Your task to perform on an android device: turn off location history Image 0: 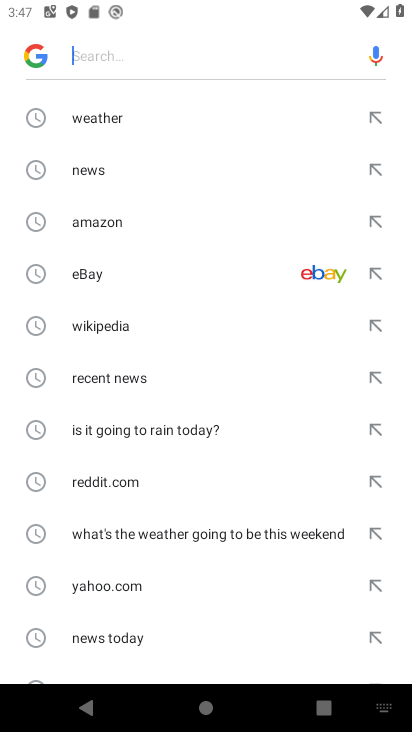
Step 0: press home button
Your task to perform on an android device: turn off location history Image 1: 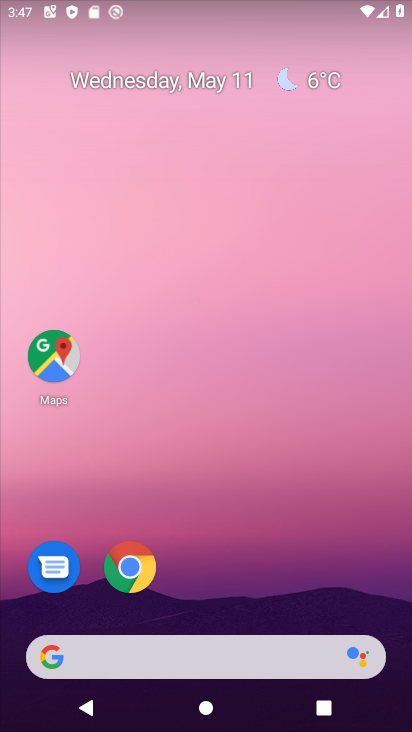
Step 1: drag from (234, 607) to (182, 217)
Your task to perform on an android device: turn off location history Image 2: 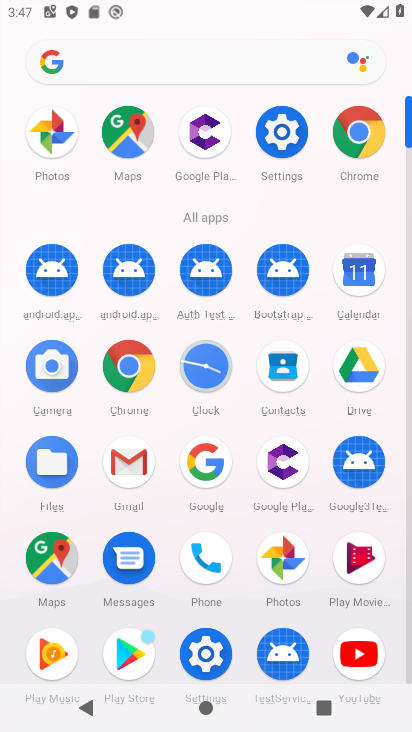
Step 2: click (279, 117)
Your task to perform on an android device: turn off location history Image 3: 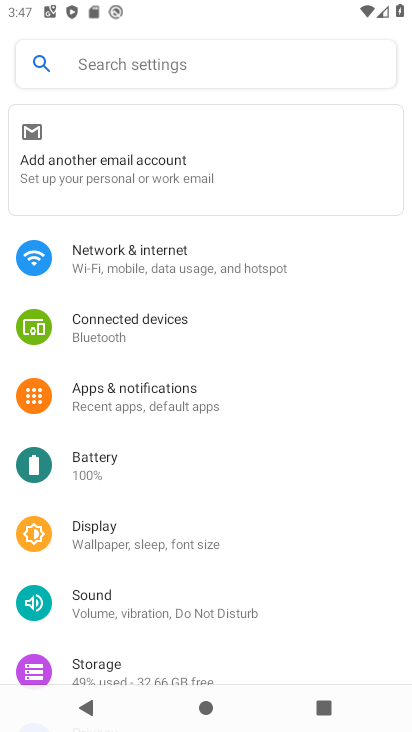
Step 3: drag from (173, 641) to (195, 333)
Your task to perform on an android device: turn off location history Image 4: 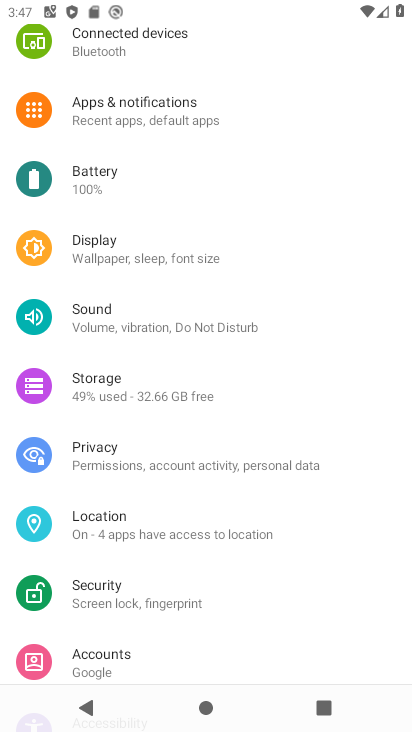
Step 4: click (127, 529)
Your task to perform on an android device: turn off location history Image 5: 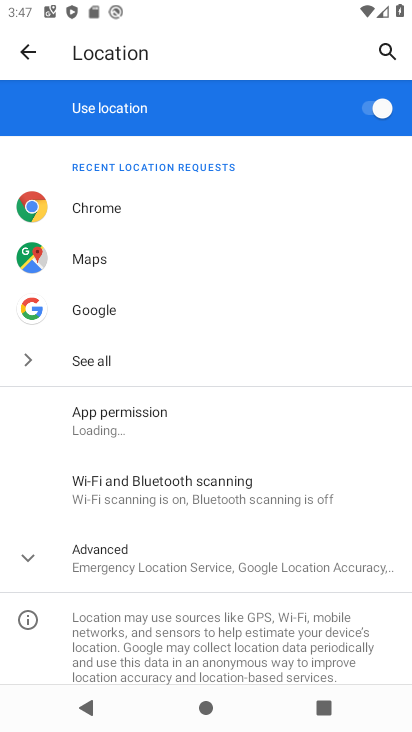
Step 5: click (179, 558)
Your task to perform on an android device: turn off location history Image 6: 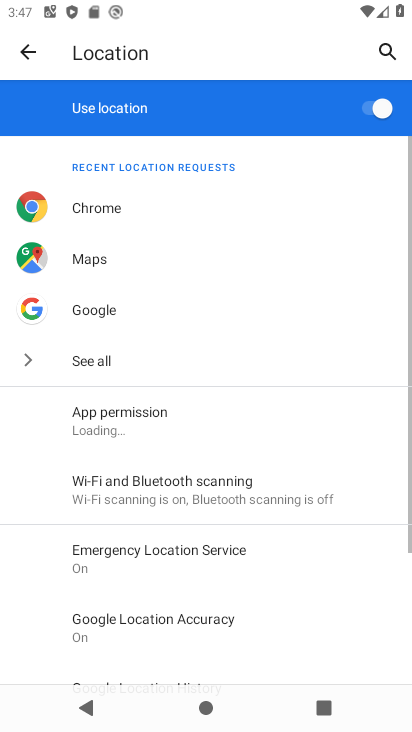
Step 6: drag from (190, 672) to (224, 332)
Your task to perform on an android device: turn off location history Image 7: 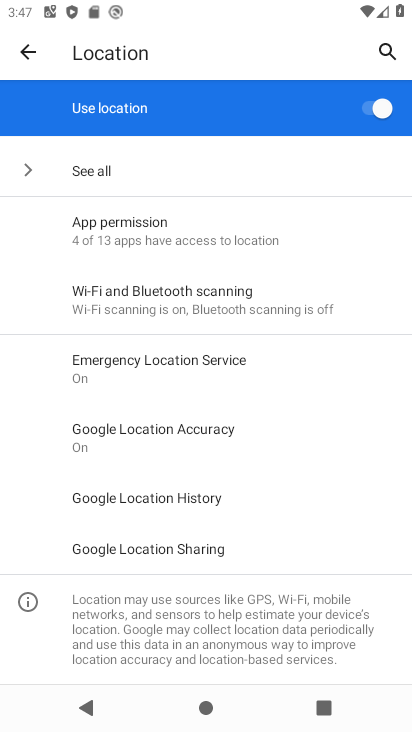
Step 7: click (169, 510)
Your task to perform on an android device: turn off location history Image 8: 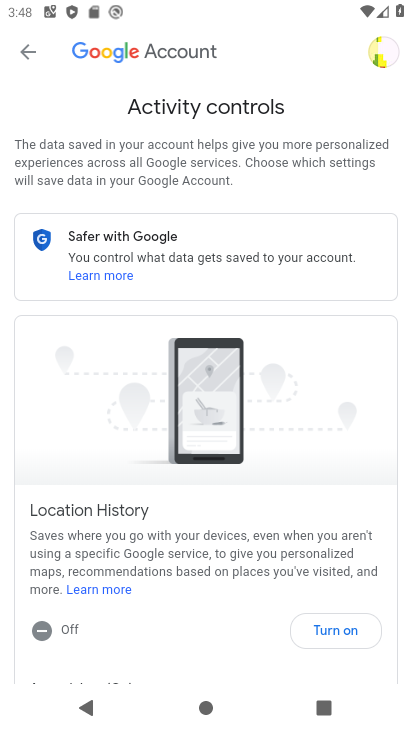
Step 8: click (344, 638)
Your task to perform on an android device: turn off location history Image 9: 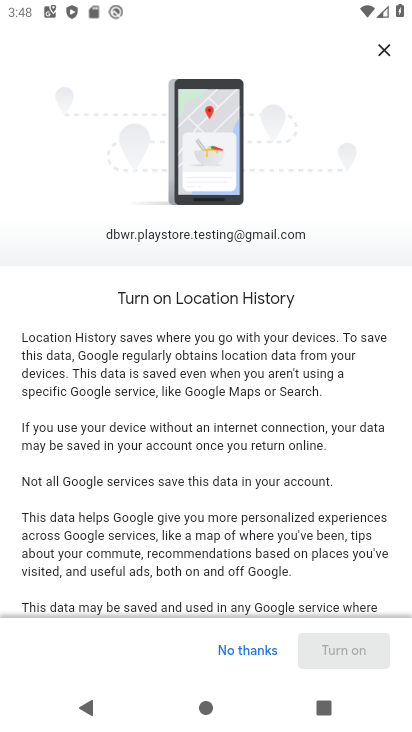
Step 9: task complete